Your task to perform on an android device: toggle improve location accuracy Image 0: 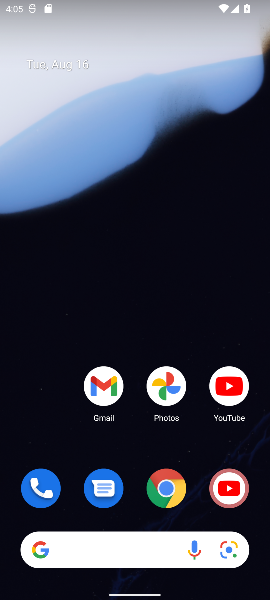
Step 0: drag from (46, 401) to (71, 75)
Your task to perform on an android device: toggle improve location accuracy Image 1: 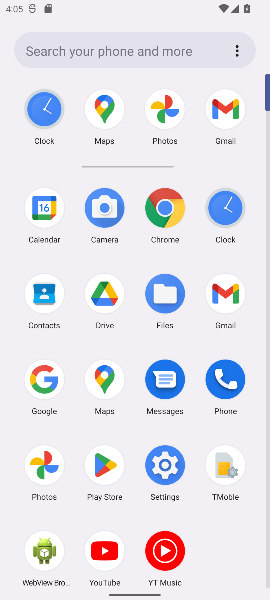
Step 1: click (166, 464)
Your task to perform on an android device: toggle improve location accuracy Image 2: 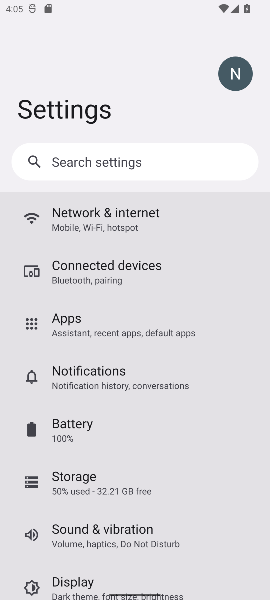
Step 2: task complete